Your task to perform on an android device: open app "Spotify: Music and Podcasts" Image 0: 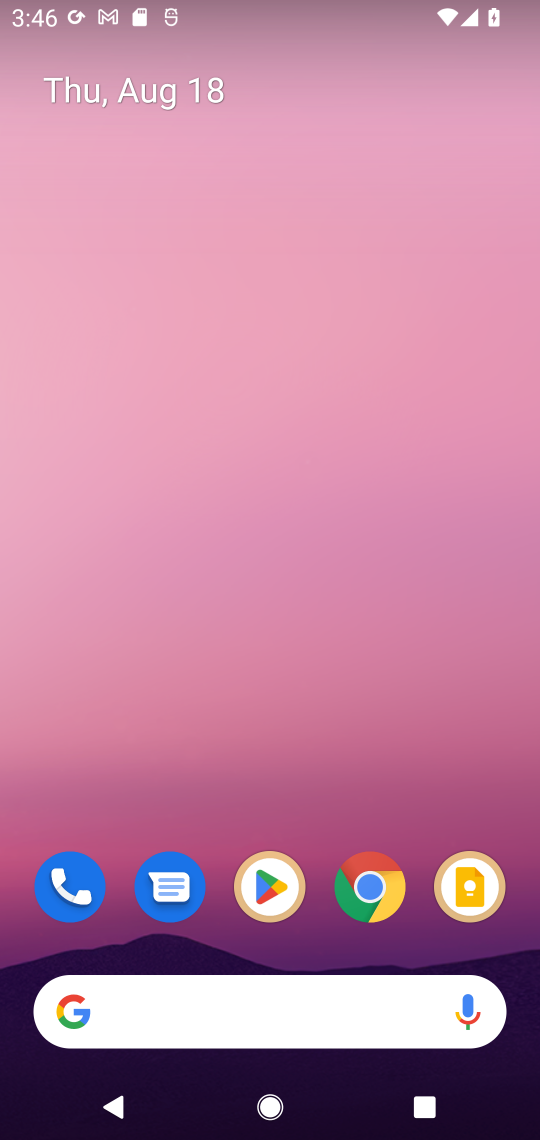
Step 0: press home button
Your task to perform on an android device: open app "Spotify: Music and Podcasts" Image 1: 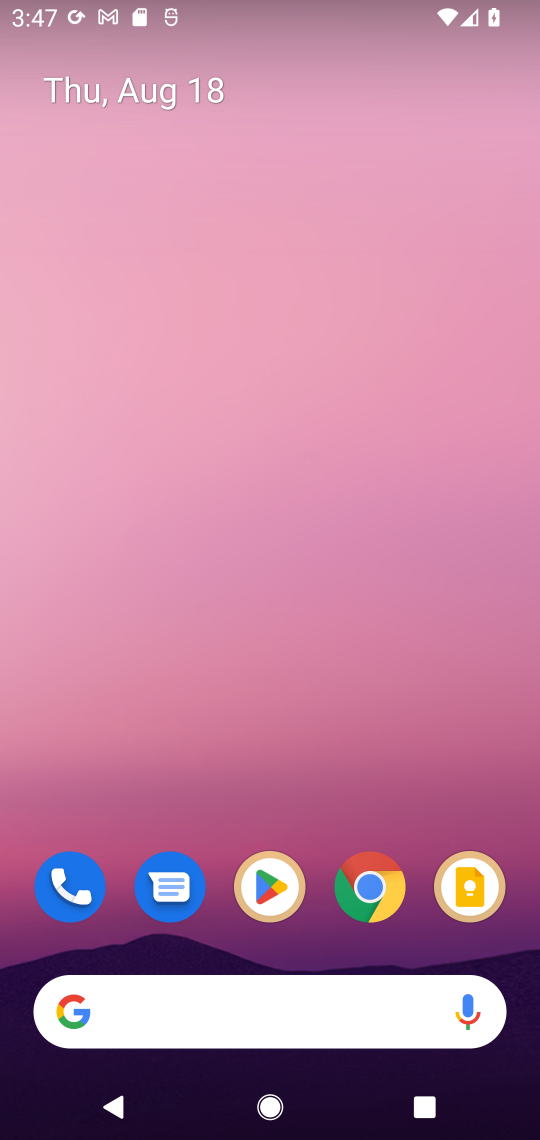
Step 1: click (274, 889)
Your task to perform on an android device: open app "Spotify: Music and Podcasts" Image 2: 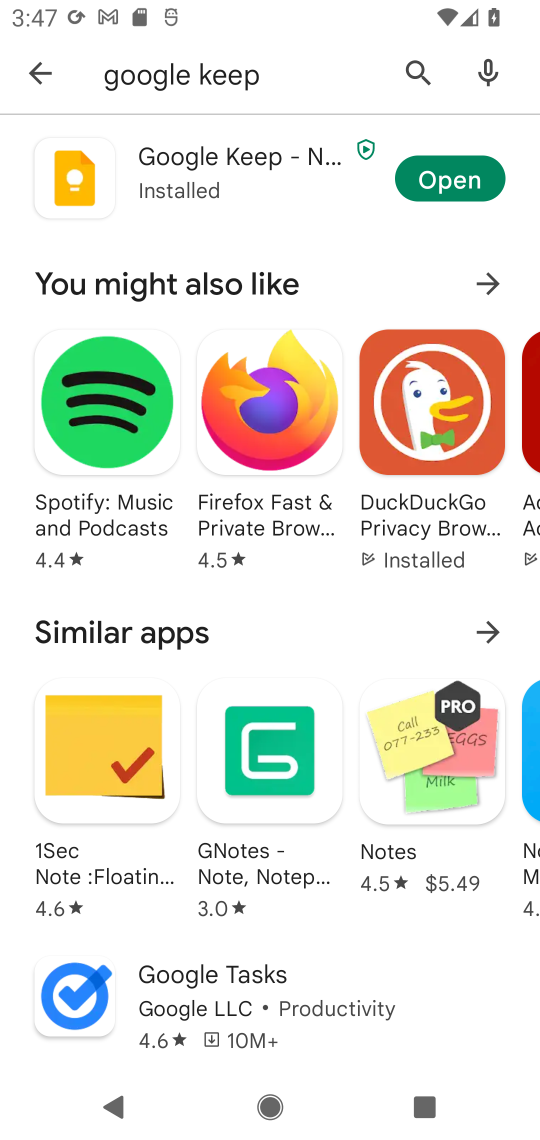
Step 2: click (415, 71)
Your task to perform on an android device: open app "Spotify: Music and Podcasts" Image 3: 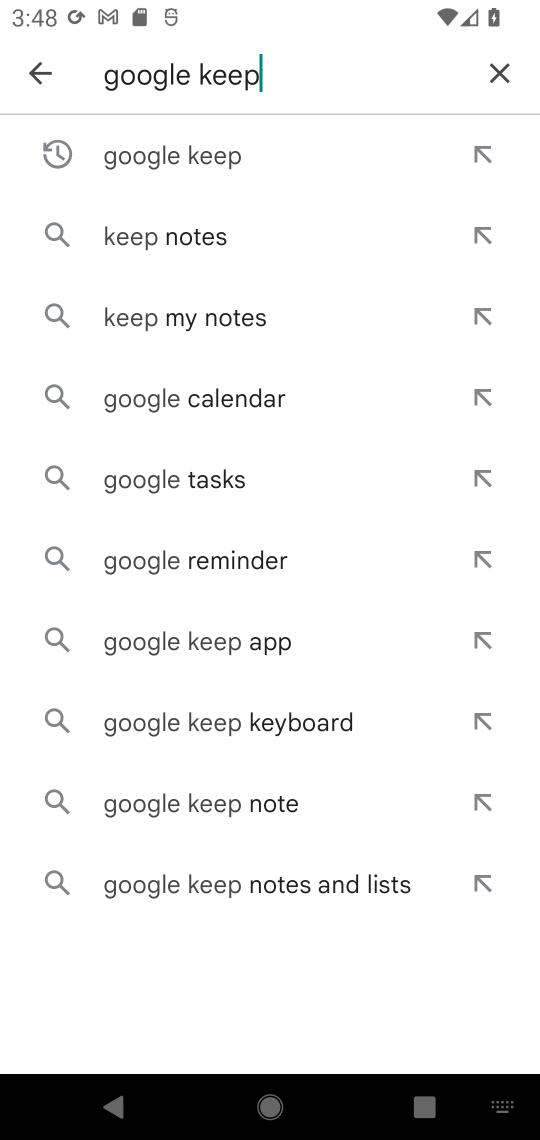
Step 3: type "Spotify: Music and Podcasts"
Your task to perform on an android device: open app "Spotify: Music and Podcasts" Image 4: 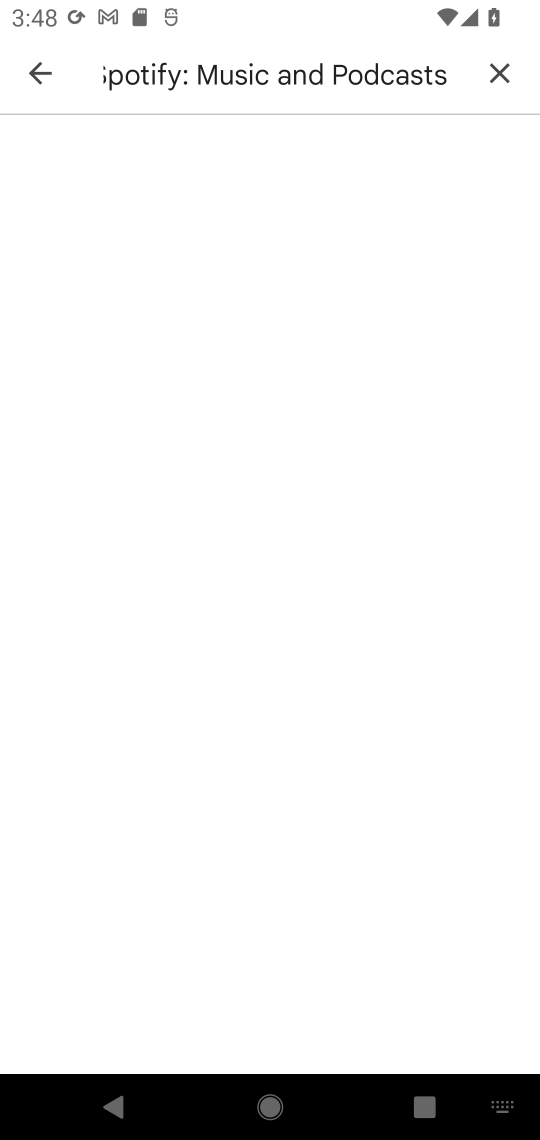
Step 4: task complete